Your task to perform on an android device: Go to accessibility settings Image 0: 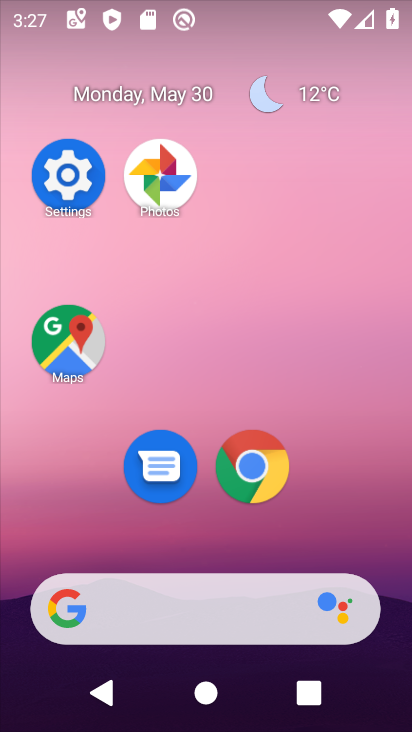
Step 0: click (36, 201)
Your task to perform on an android device: Go to accessibility settings Image 1: 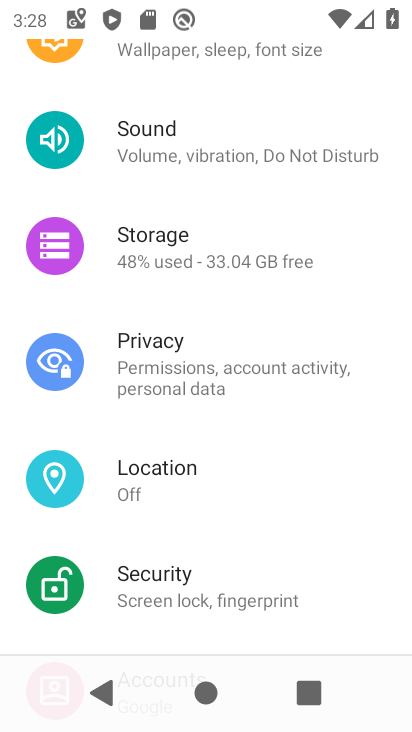
Step 1: drag from (317, 521) to (270, 124)
Your task to perform on an android device: Go to accessibility settings Image 2: 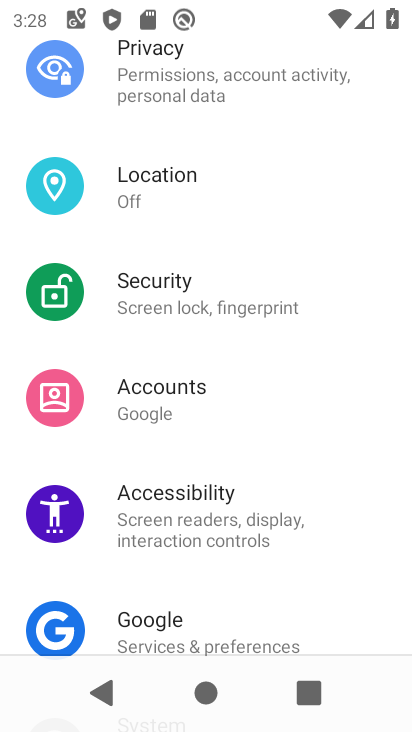
Step 2: click (262, 503)
Your task to perform on an android device: Go to accessibility settings Image 3: 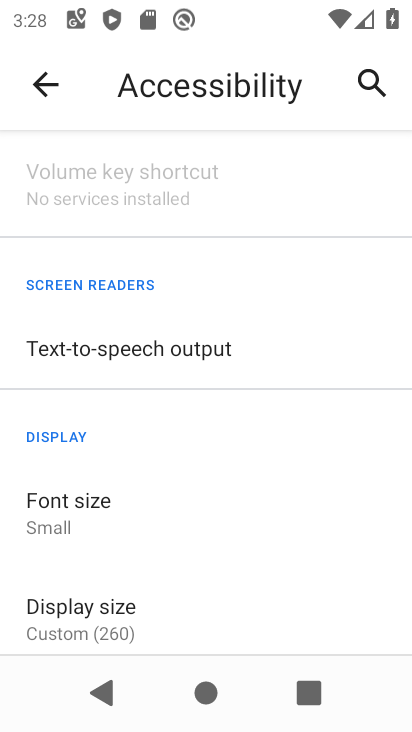
Step 3: task complete